Your task to perform on an android device: Show me the alarms in the clock app Image 0: 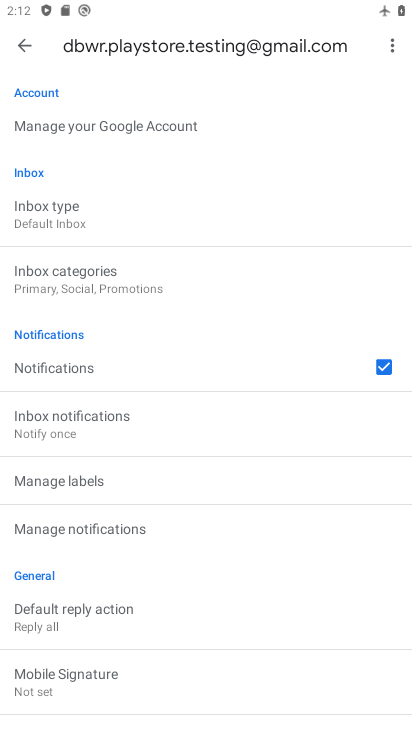
Step 0: press home button
Your task to perform on an android device: Show me the alarms in the clock app Image 1: 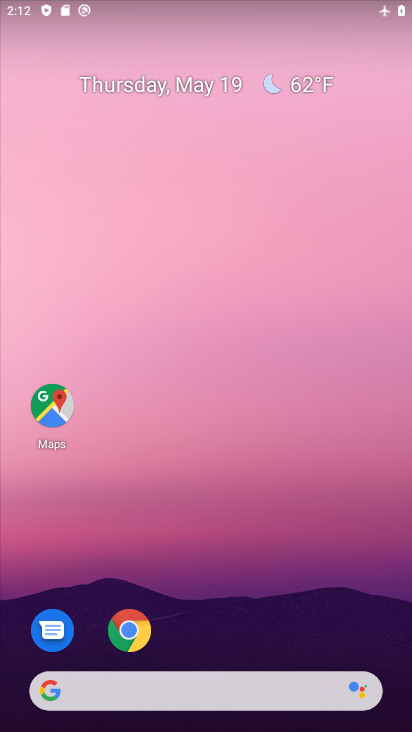
Step 1: drag from (376, 606) to (362, 163)
Your task to perform on an android device: Show me the alarms in the clock app Image 2: 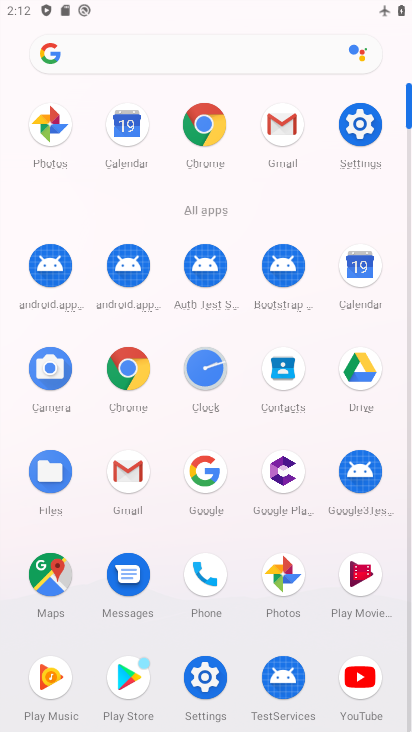
Step 2: click (217, 386)
Your task to perform on an android device: Show me the alarms in the clock app Image 3: 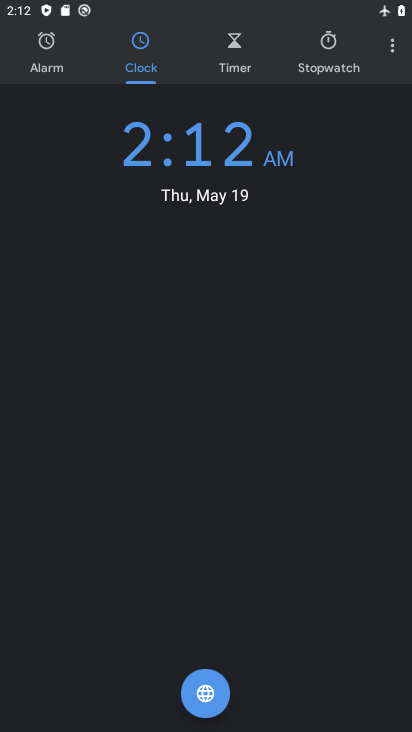
Step 3: click (40, 62)
Your task to perform on an android device: Show me the alarms in the clock app Image 4: 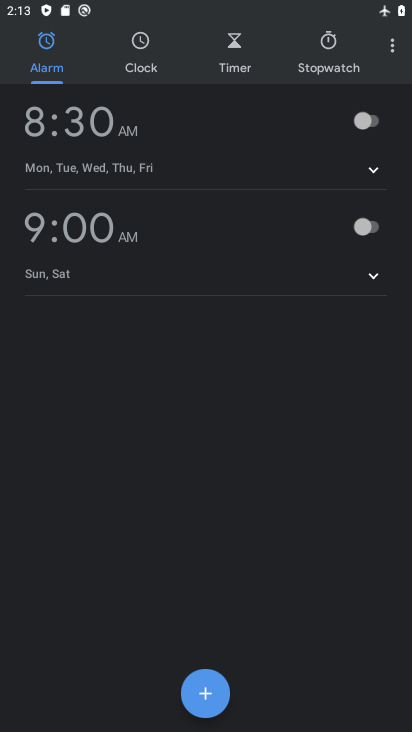
Step 4: task complete